Your task to perform on an android device: Go to eBay Image 0: 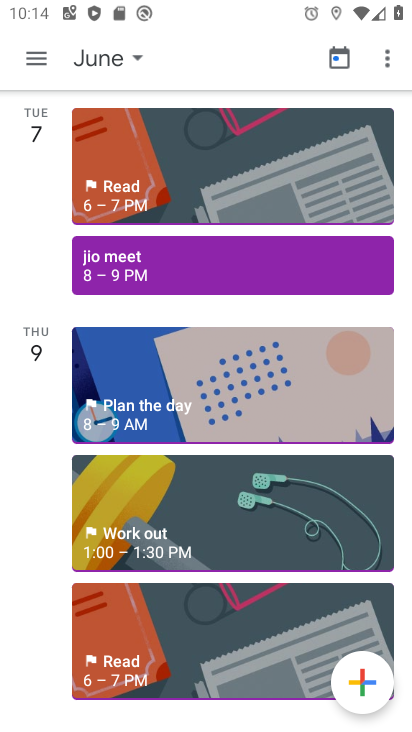
Step 0: press home button
Your task to perform on an android device: Go to eBay Image 1: 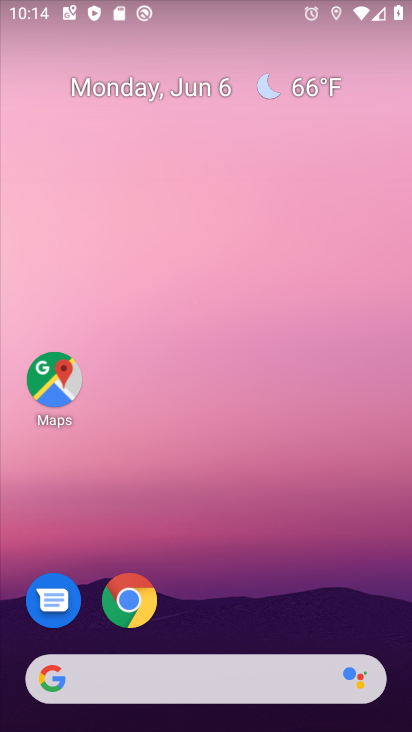
Step 1: click (134, 604)
Your task to perform on an android device: Go to eBay Image 2: 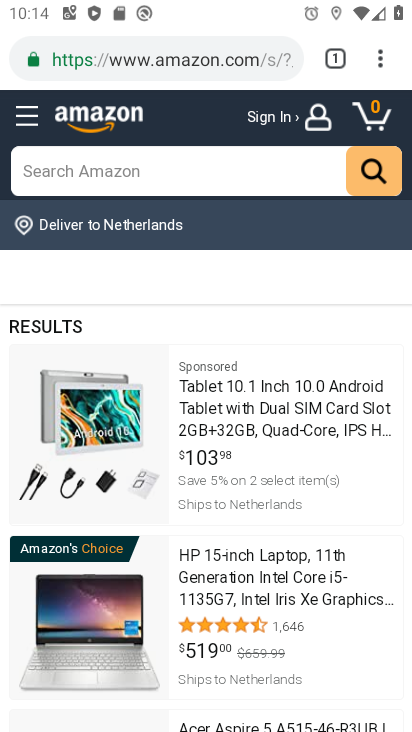
Step 2: click (336, 52)
Your task to perform on an android device: Go to eBay Image 3: 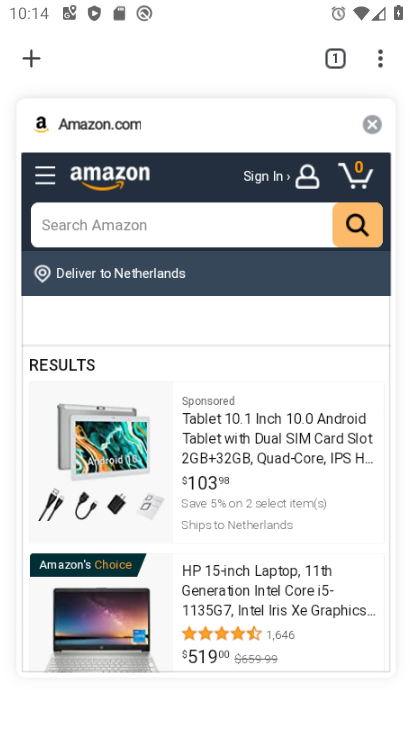
Step 3: click (372, 119)
Your task to perform on an android device: Go to eBay Image 4: 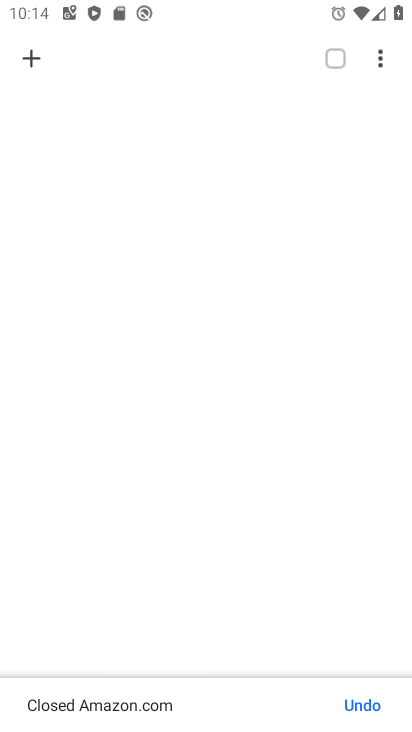
Step 4: click (35, 55)
Your task to perform on an android device: Go to eBay Image 5: 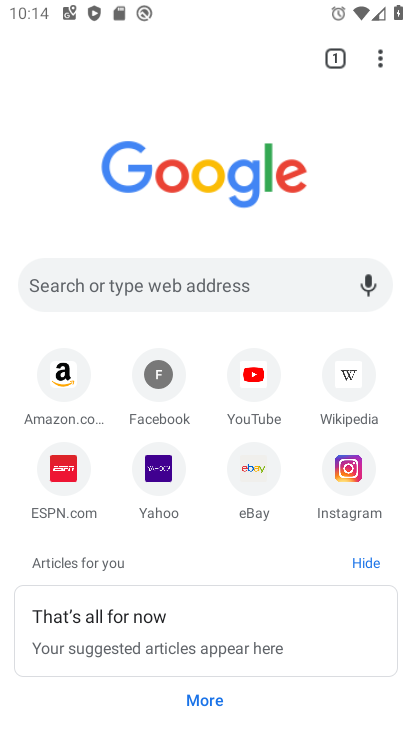
Step 5: click (257, 476)
Your task to perform on an android device: Go to eBay Image 6: 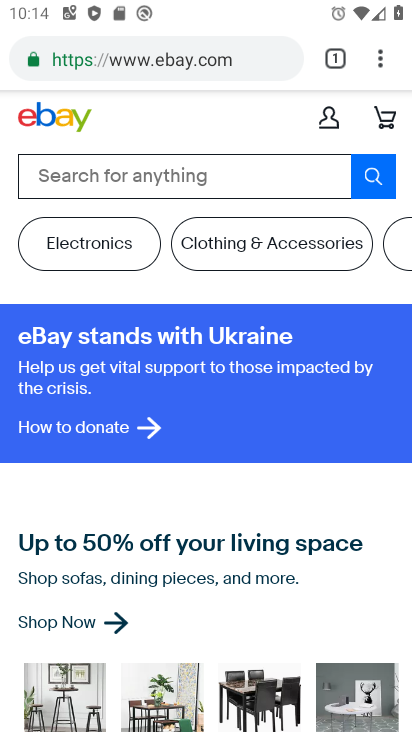
Step 6: task complete